Your task to perform on an android device: Set the phone to "Do not disturb". Image 0: 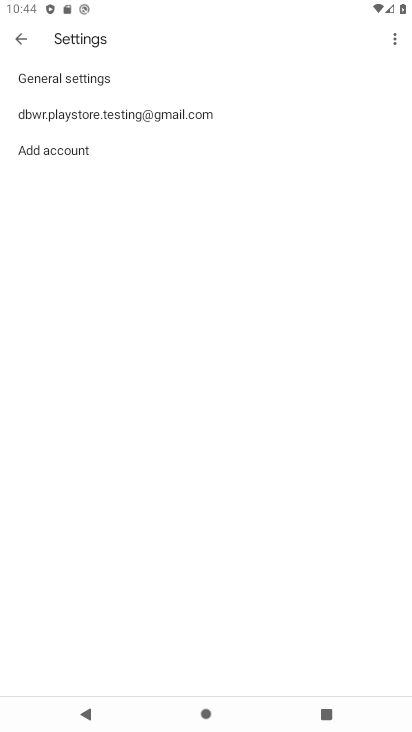
Step 0: press home button
Your task to perform on an android device: Set the phone to "Do not disturb". Image 1: 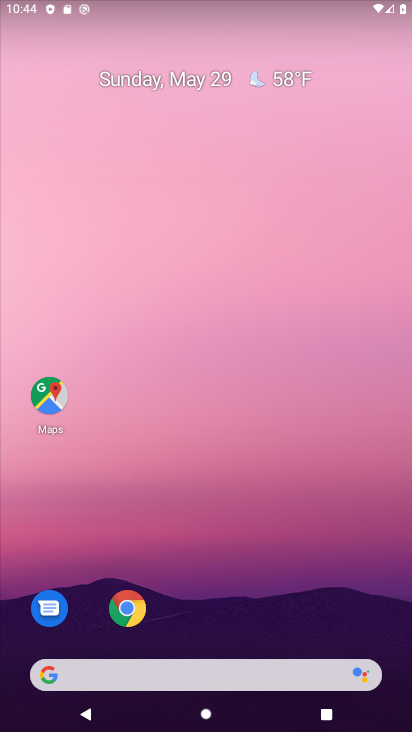
Step 1: drag from (229, 591) to (297, 134)
Your task to perform on an android device: Set the phone to "Do not disturb". Image 2: 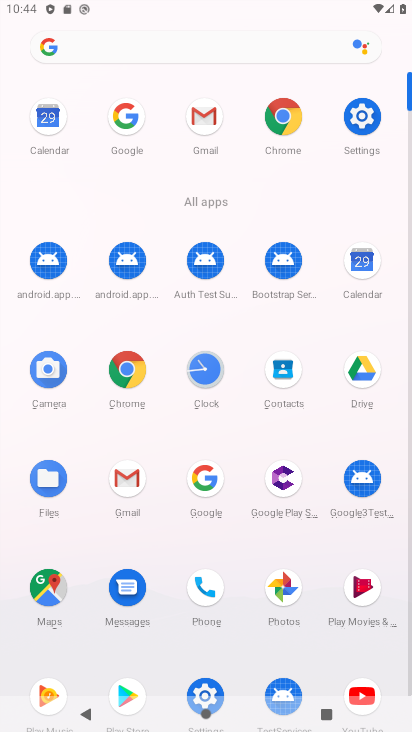
Step 2: click (363, 114)
Your task to perform on an android device: Set the phone to "Do not disturb". Image 3: 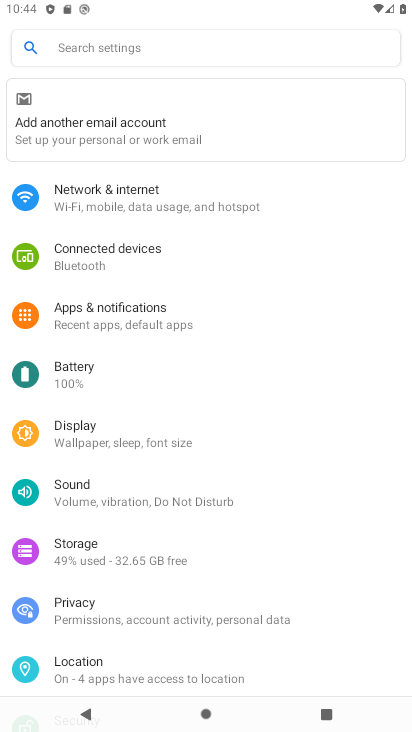
Step 3: click (127, 204)
Your task to perform on an android device: Set the phone to "Do not disturb". Image 4: 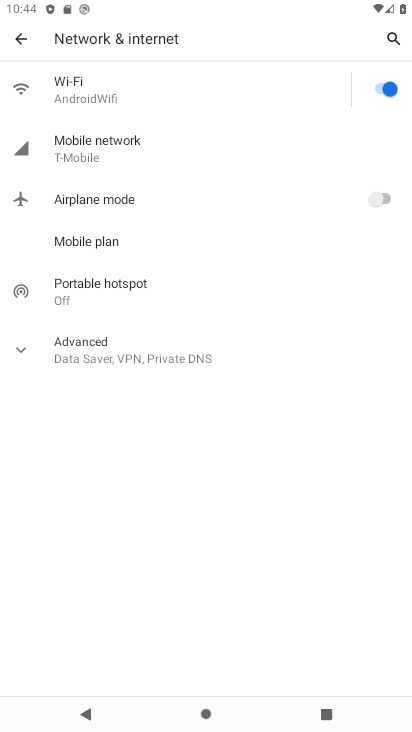
Step 4: press back button
Your task to perform on an android device: Set the phone to "Do not disturb". Image 5: 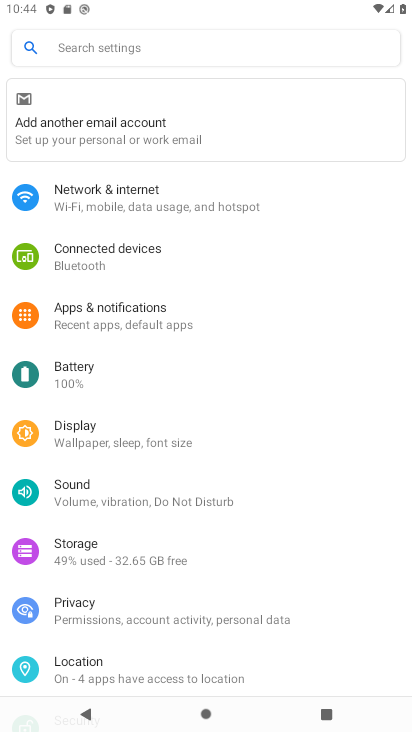
Step 5: click (170, 499)
Your task to perform on an android device: Set the phone to "Do not disturb". Image 6: 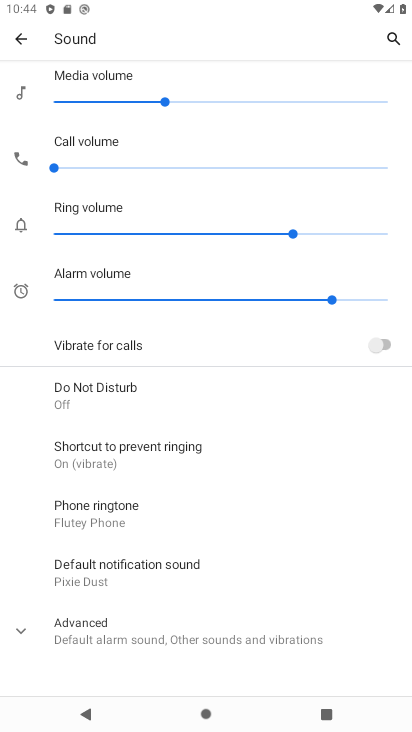
Step 6: click (67, 388)
Your task to perform on an android device: Set the phone to "Do not disturb". Image 7: 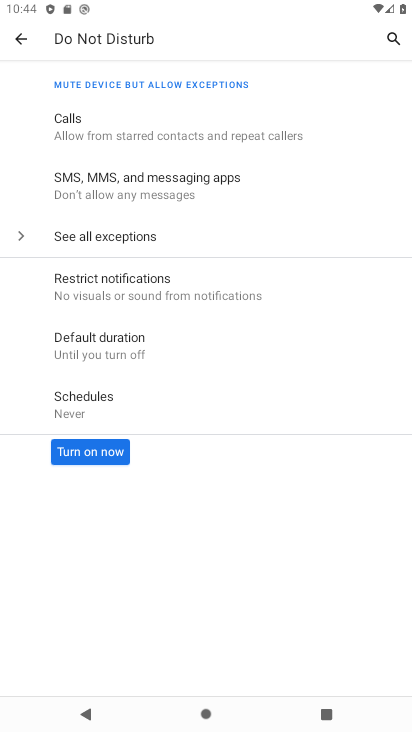
Step 7: click (86, 453)
Your task to perform on an android device: Set the phone to "Do not disturb". Image 8: 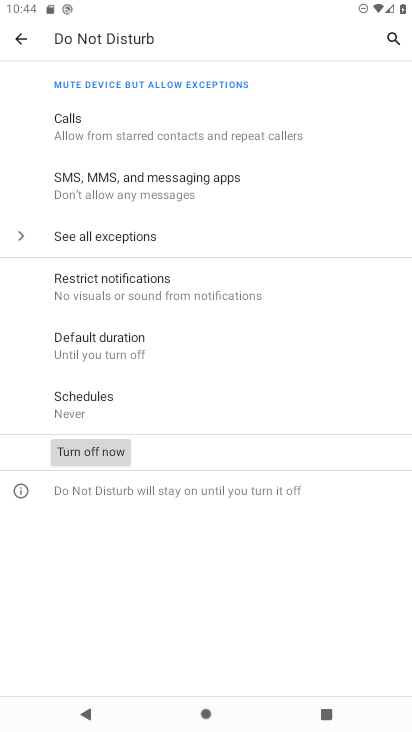
Step 8: task complete